Your task to perform on an android device: change the clock display to analog Image 0: 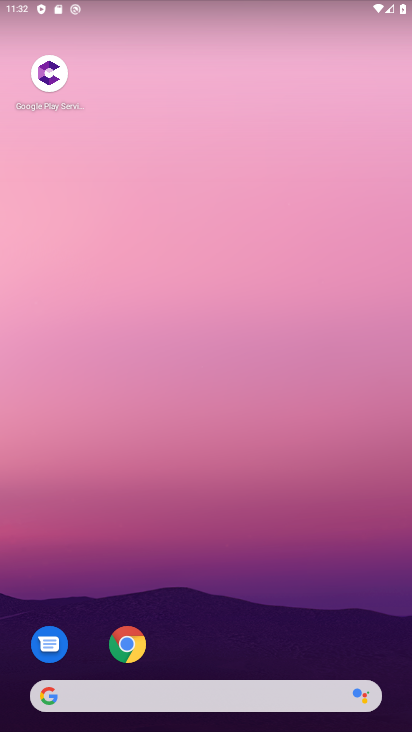
Step 0: drag from (310, 569) to (209, 117)
Your task to perform on an android device: change the clock display to analog Image 1: 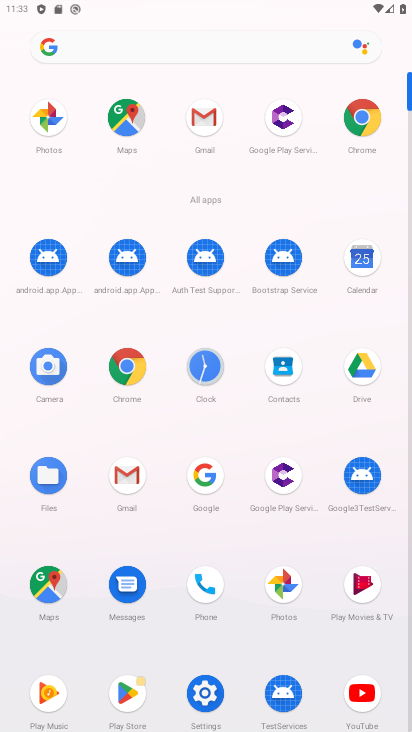
Step 1: click (207, 372)
Your task to perform on an android device: change the clock display to analog Image 2: 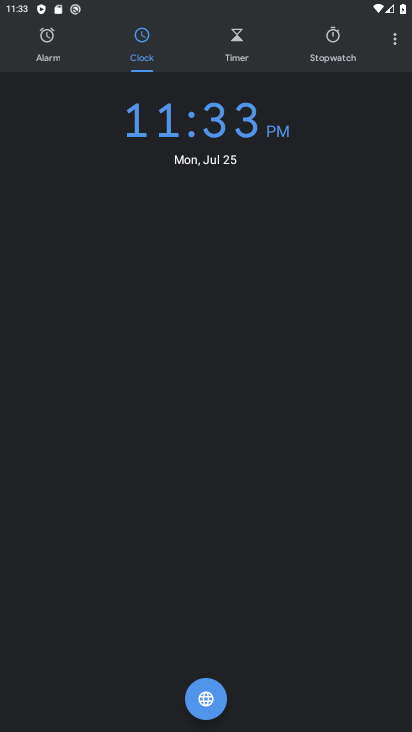
Step 2: click (394, 35)
Your task to perform on an android device: change the clock display to analog Image 3: 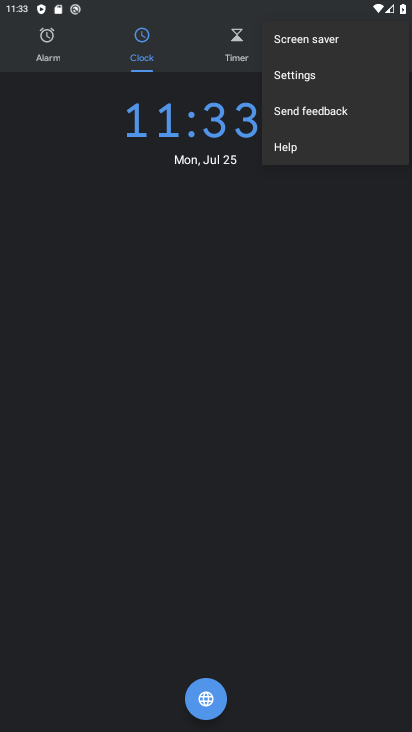
Step 3: click (313, 75)
Your task to perform on an android device: change the clock display to analog Image 4: 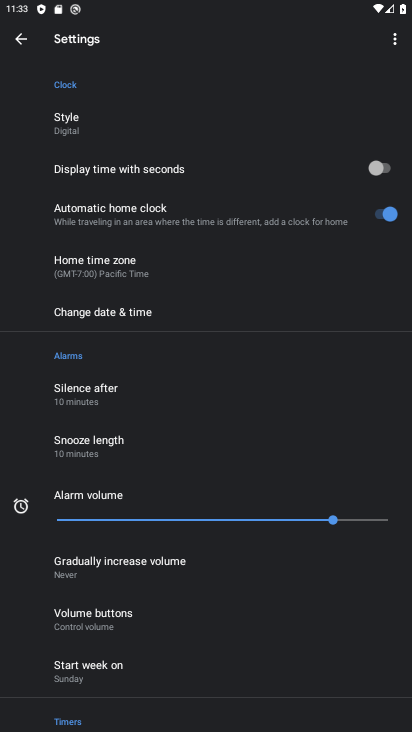
Step 4: click (81, 122)
Your task to perform on an android device: change the clock display to analog Image 5: 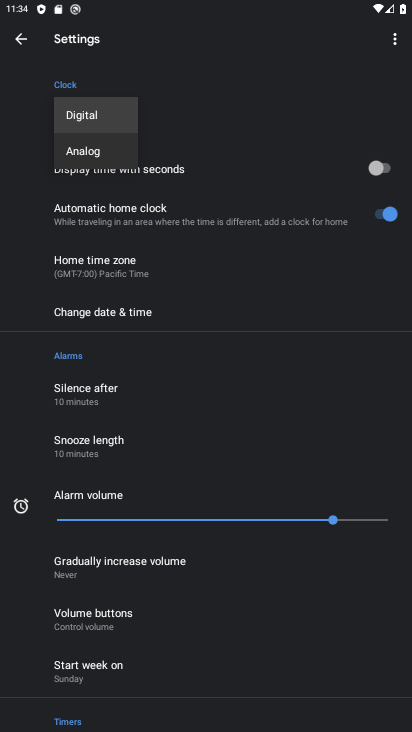
Step 5: click (99, 159)
Your task to perform on an android device: change the clock display to analog Image 6: 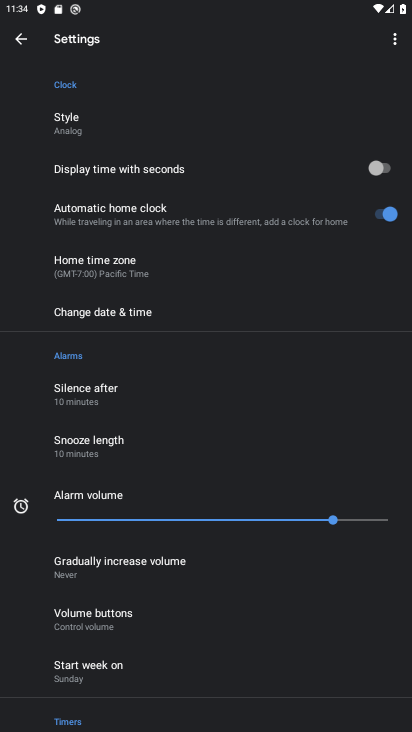
Step 6: task complete